Your task to perform on an android device: turn on bluetooth scan Image 0: 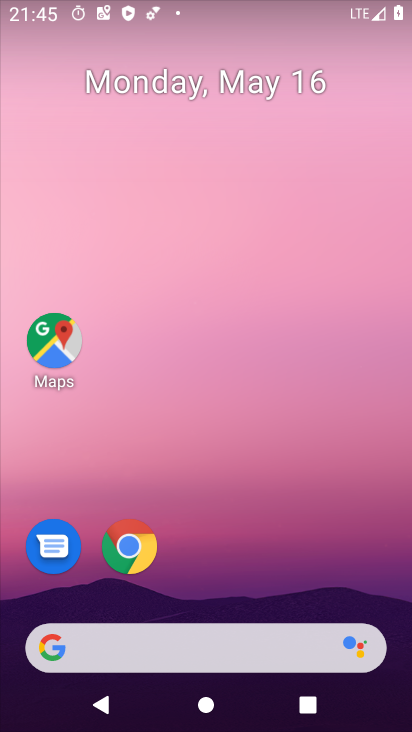
Step 0: press home button
Your task to perform on an android device: turn on bluetooth scan Image 1: 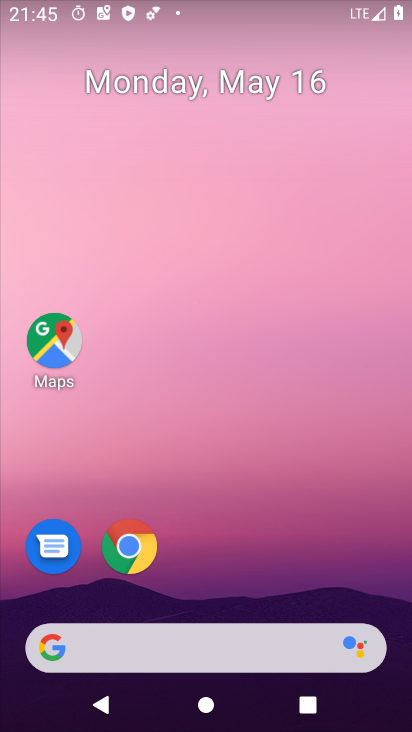
Step 1: drag from (284, 673) to (205, 200)
Your task to perform on an android device: turn on bluetooth scan Image 2: 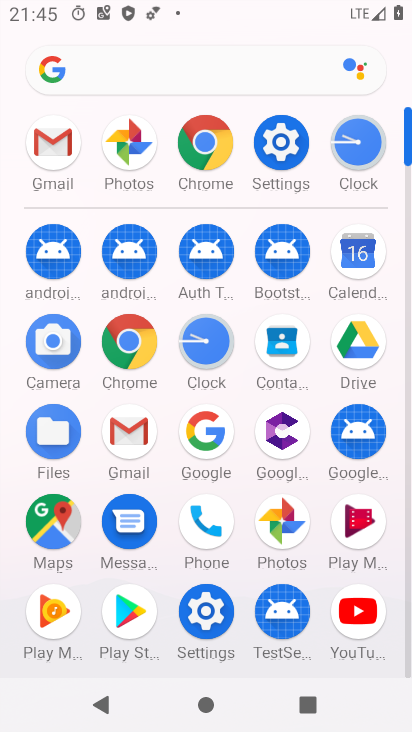
Step 2: click (286, 140)
Your task to perform on an android device: turn on bluetooth scan Image 3: 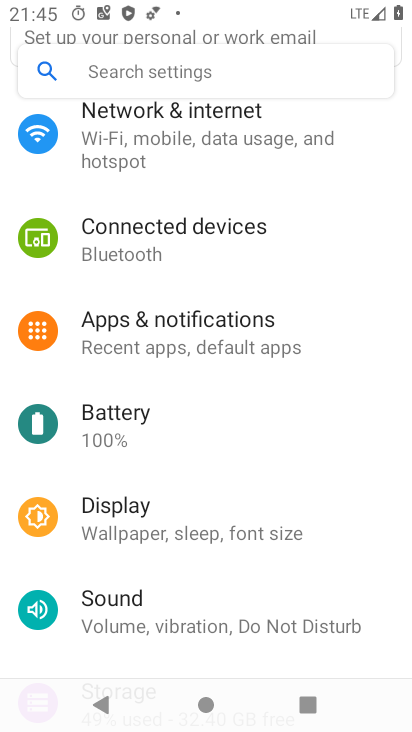
Step 3: drag from (237, 510) to (205, 353)
Your task to perform on an android device: turn on bluetooth scan Image 4: 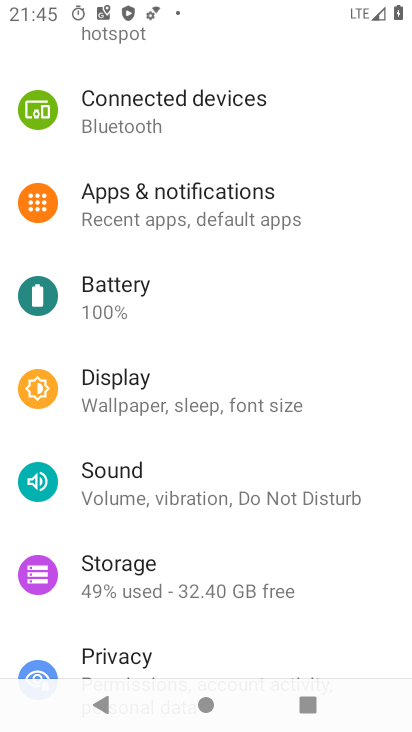
Step 4: drag from (161, 541) to (185, 314)
Your task to perform on an android device: turn on bluetooth scan Image 5: 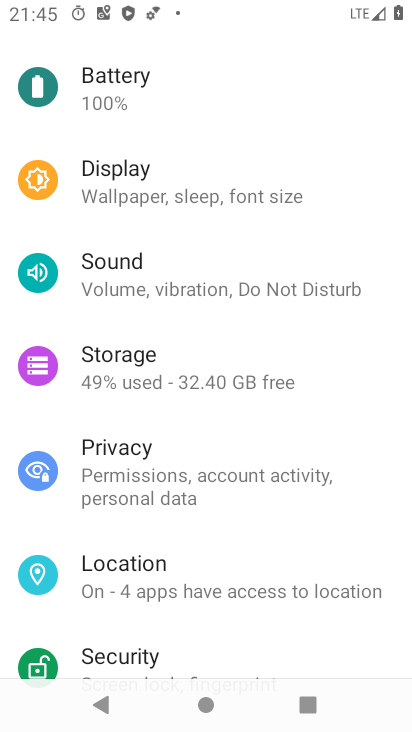
Step 5: click (166, 570)
Your task to perform on an android device: turn on bluetooth scan Image 6: 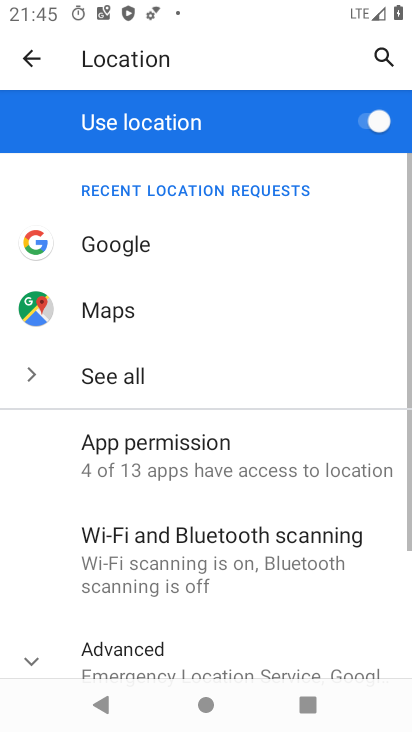
Step 6: drag from (191, 564) to (202, 438)
Your task to perform on an android device: turn on bluetooth scan Image 7: 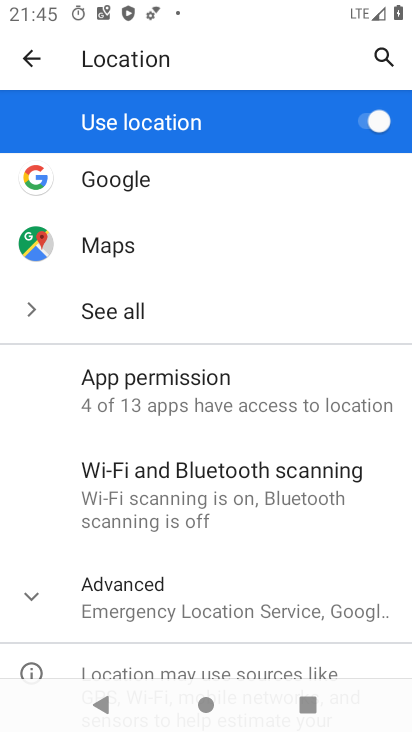
Step 7: click (82, 591)
Your task to perform on an android device: turn on bluetooth scan Image 8: 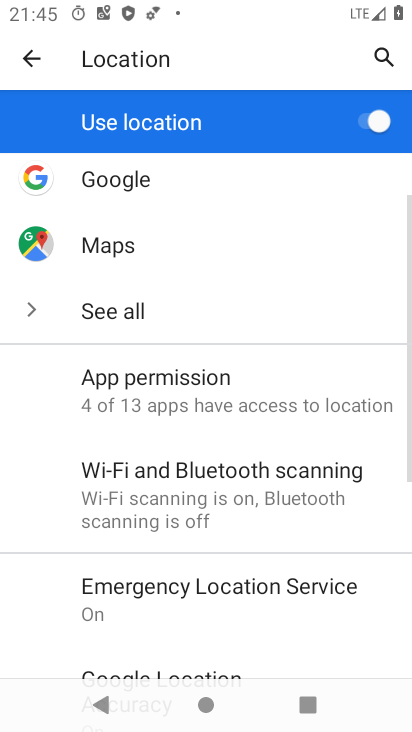
Step 8: click (316, 470)
Your task to perform on an android device: turn on bluetooth scan Image 9: 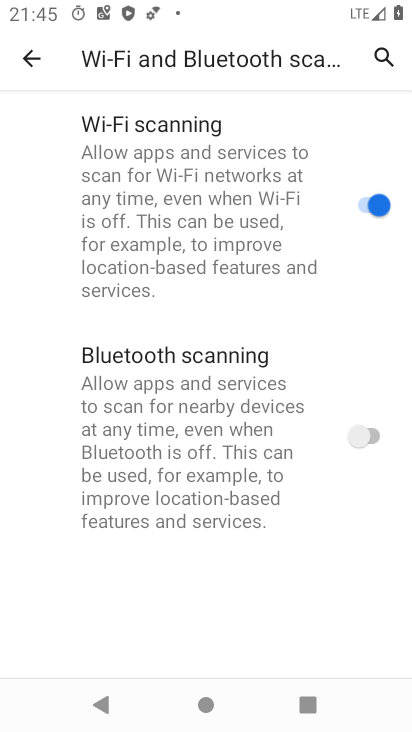
Step 9: click (358, 440)
Your task to perform on an android device: turn on bluetooth scan Image 10: 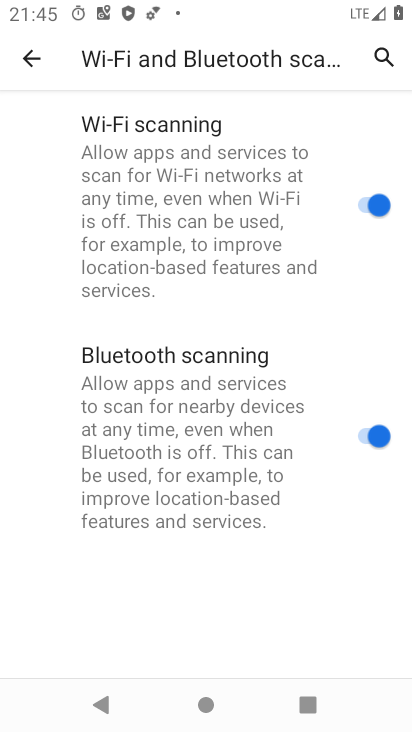
Step 10: task complete